Your task to perform on an android device: Open ESPN.com Image 0: 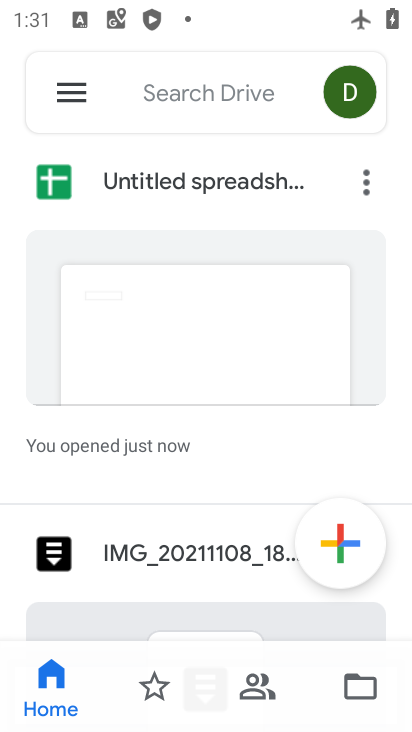
Step 0: press home button
Your task to perform on an android device: Open ESPN.com Image 1: 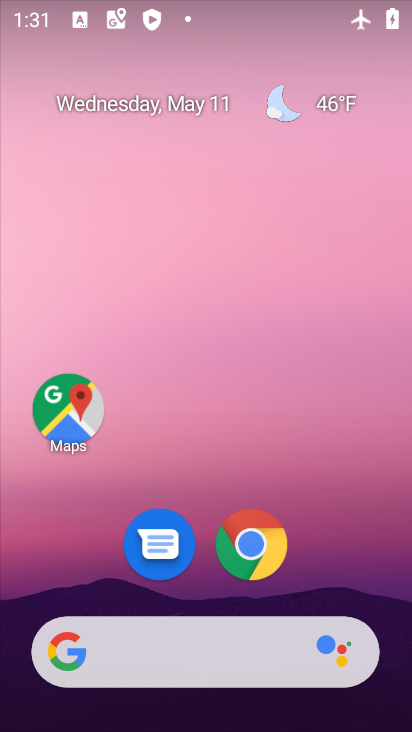
Step 1: click (251, 540)
Your task to perform on an android device: Open ESPN.com Image 2: 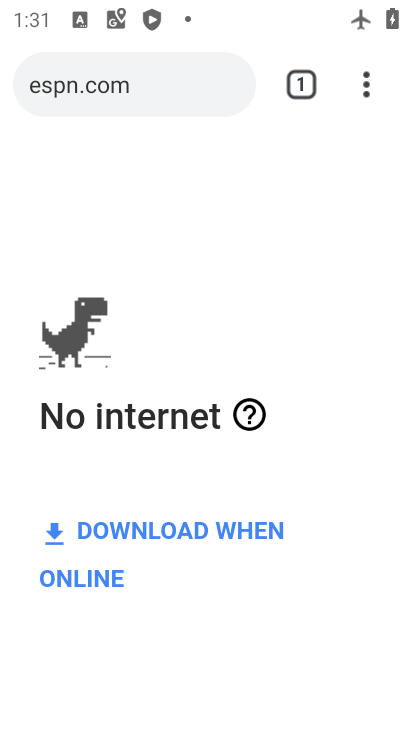
Step 2: task complete